Your task to perform on an android device: turn off notifications in google photos Image 0: 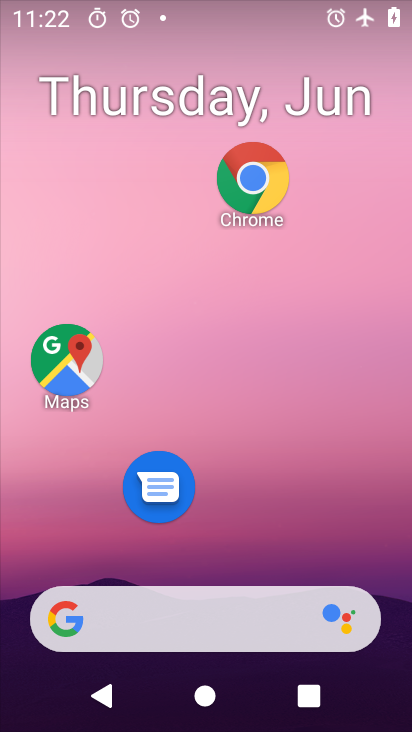
Step 0: drag from (241, 727) to (242, 133)
Your task to perform on an android device: turn off notifications in google photos Image 1: 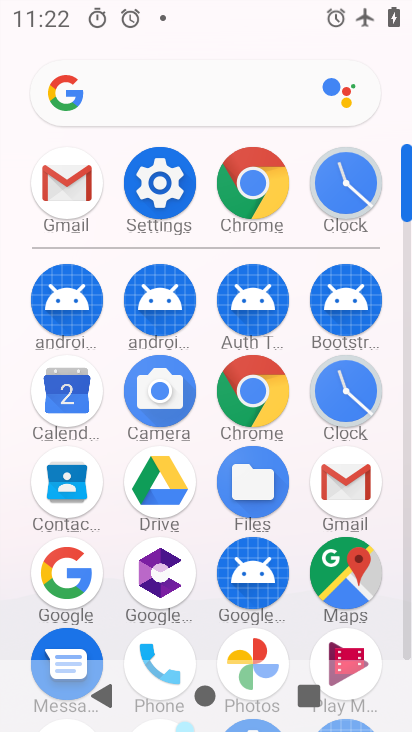
Step 1: click (249, 662)
Your task to perform on an android device: turn off notifications in google photos Image 2: 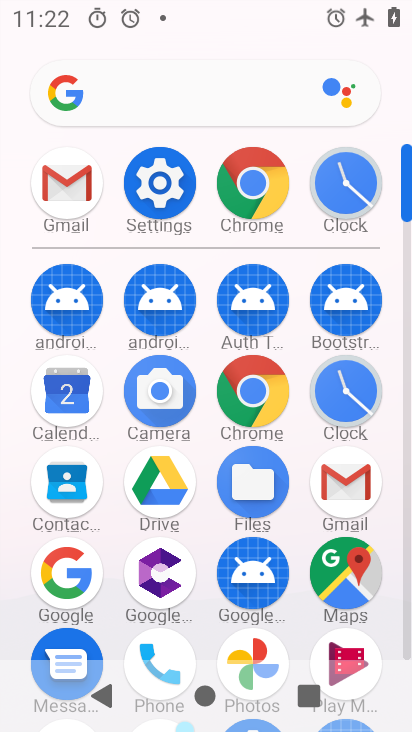
Step 2: click (257, 649)
Your task to perform on an android device: turn off notifications in google photos Image 3: 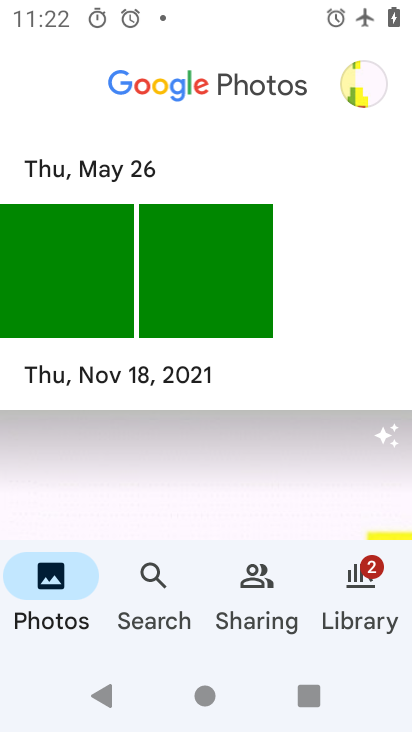
Step 3: click (356, 79)
Your task to perform on an android device: turn off notifications in google photos Image 4: 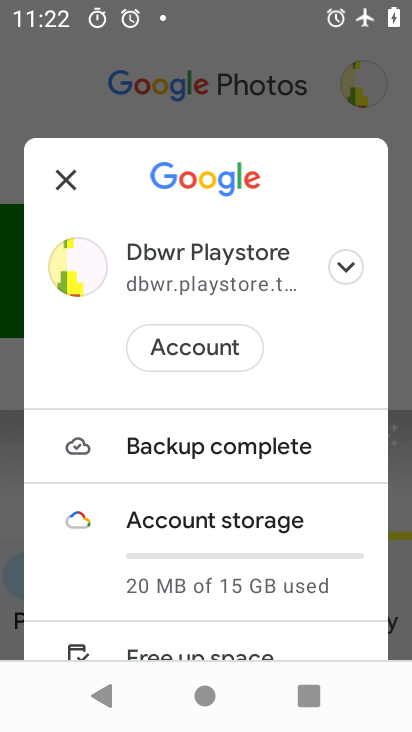
Step 4: drag from (187, 635) to (167, 242)
Your task to perform on an android device: turn off notifications in google photos Image 5: 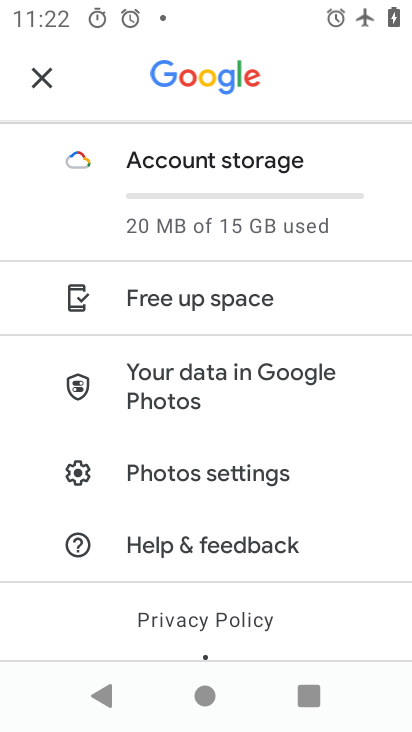
Step 5: drag from (186, 629) to (182, 338)
Your task to perform on an android device: turn off notifications in google photos Image 6: 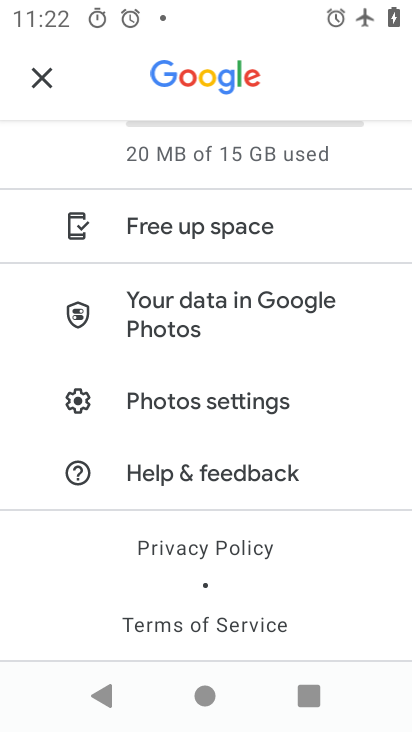
Step 6: click (210, 407)
Your task to perform on an android device: turn off notifications in google photos Image 7: 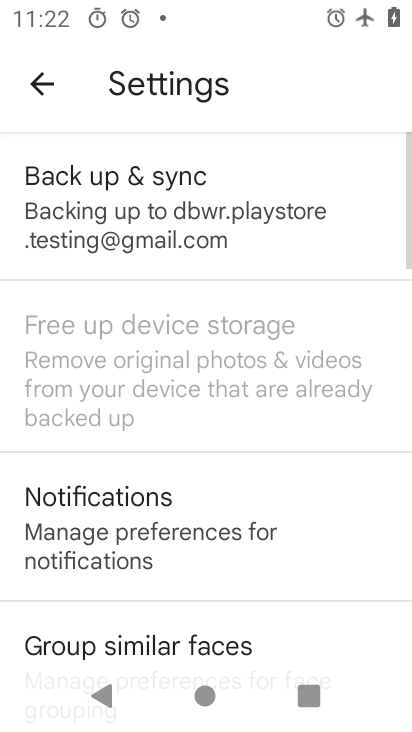
Step 7: click (109, 533)
Your task to perform on an android device: turn off notifications in google photos Image 8: 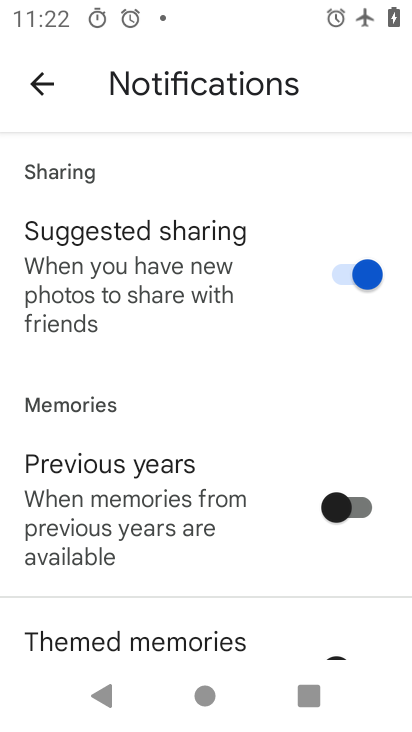
Step 8: drag from (122, 628) to (125, 264)
Your task to perform on an android device: turn off notifications in google photos Image 9: 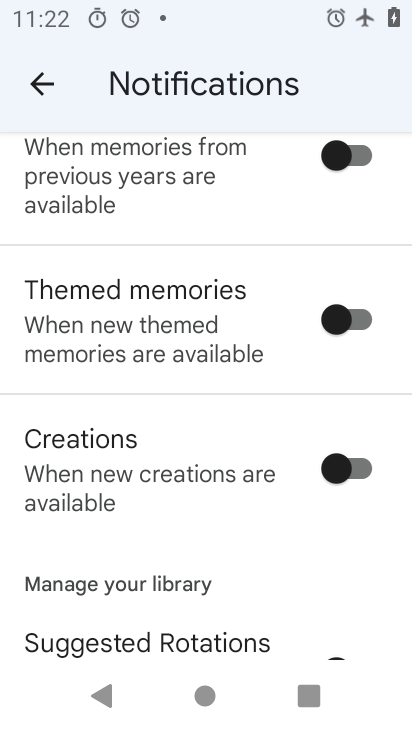
Step 9: drag from (117, 637) to (120, 272)
Your task to perform on an android device: turn off notifications in google photos Image 10: 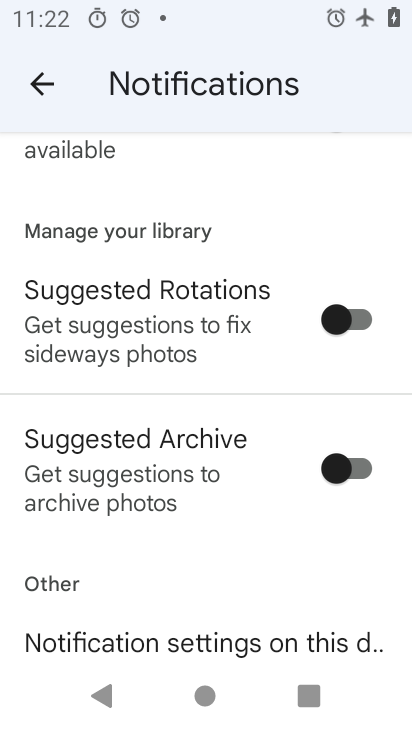
Step 10: drag from (132, 645) to (130, 402)
Your task to perform on an android device: turn off notifications in google photos Image 11: 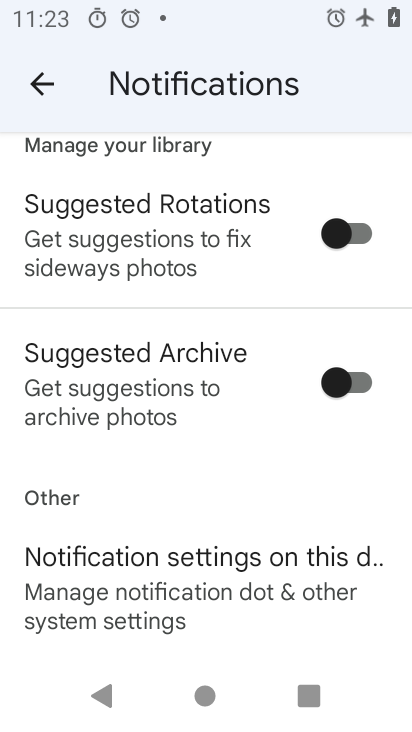
Step 11: click (200, 585)
Your task to perform on an android device: turn off notifications in google photos Image 12: 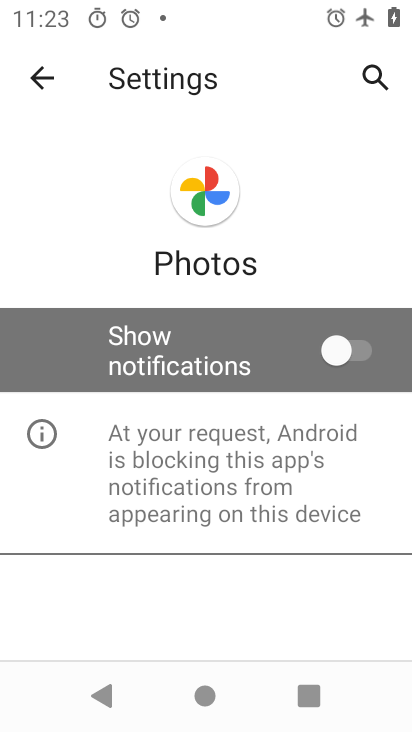
Step 12: task complete